Your task to perform on an android device: Open battery settings Image 0: 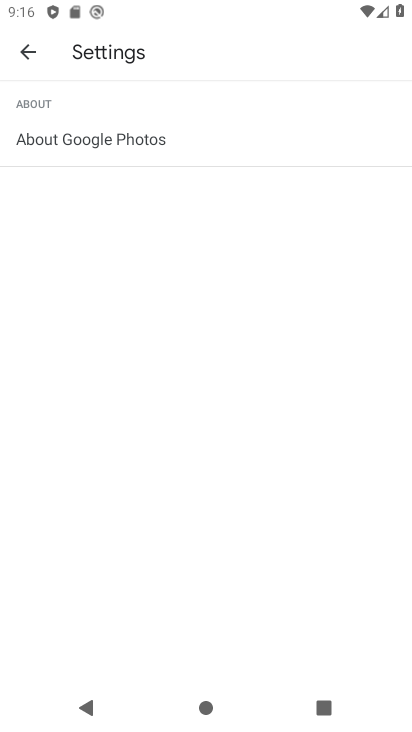
Step 0: press back button
Your task to perform on an android device: Open battery settings Image 1: 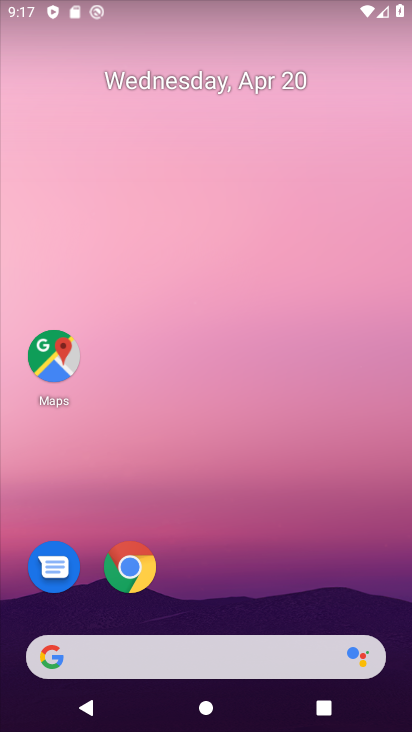
Step 1: drag from (210, 581) to (303, 23)
Your task to perform on an android device: Open battery settings Image 2: 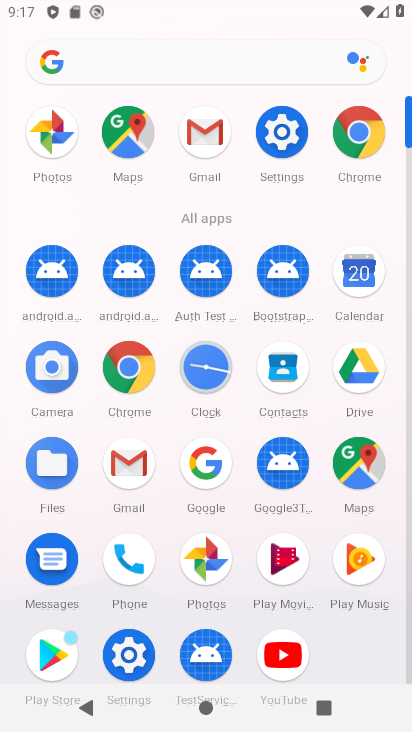
Step 2: click (285, 131)
Your task to perform on an android device: Open battery settings Image 3: 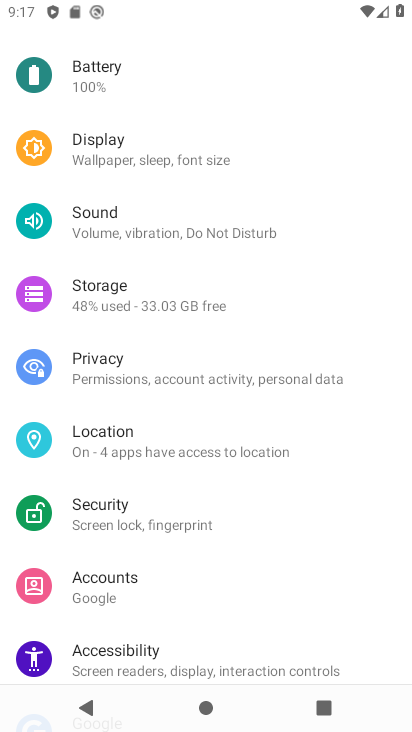
Step 3: click (120, 75)
Your task to perform on an android device: Open battery settings Image 4: 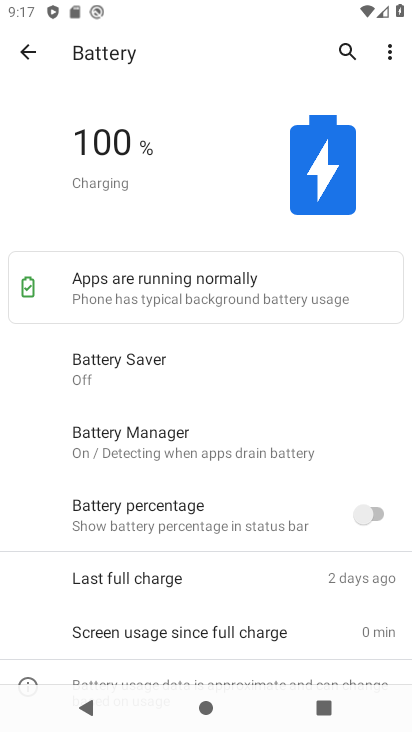
Step 4: task complete